Your task to perform on an android device: set an alarm Image 0: 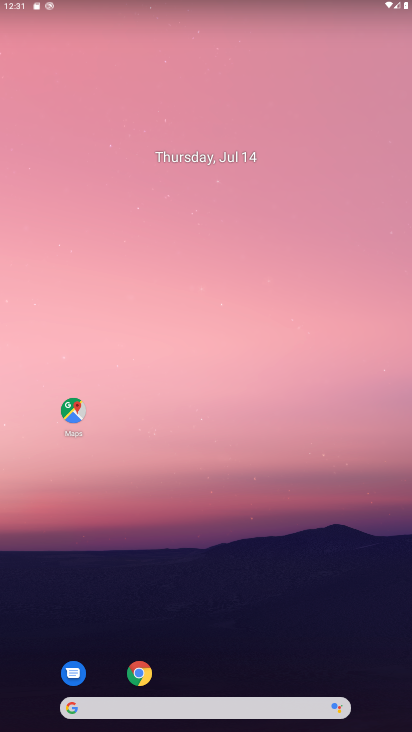
Step 0: drag from (305, 644) to (235, 52)
Your task to perform on an android device: set an alarm Image 1: 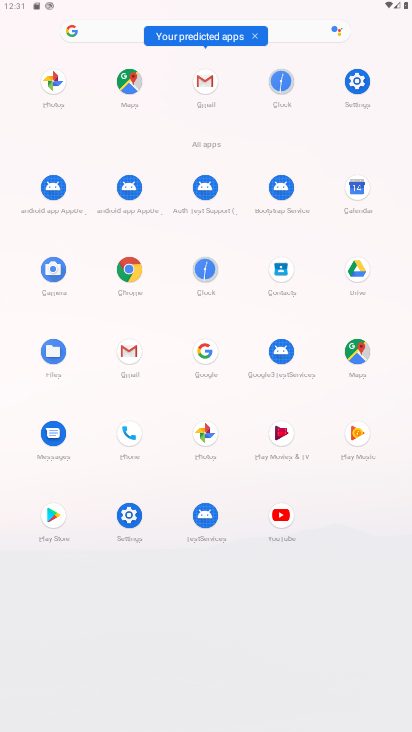
Step 1: click (287, 80)
Your task to perform on an android device: set an alarm Image 2: 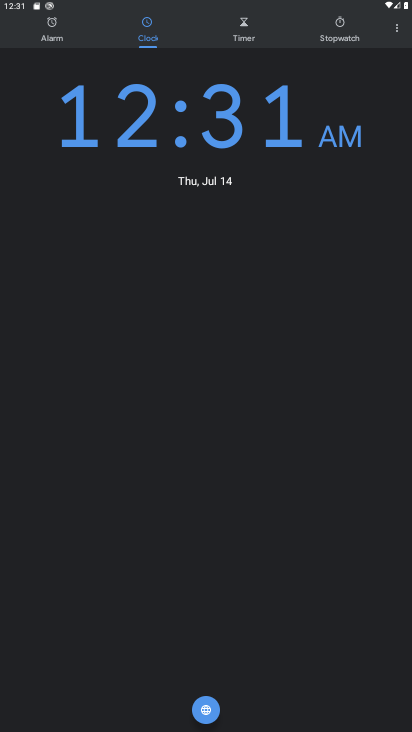
Step 2: click (56, 15)
Your task to perform on an android device: set an alarm Image 3: 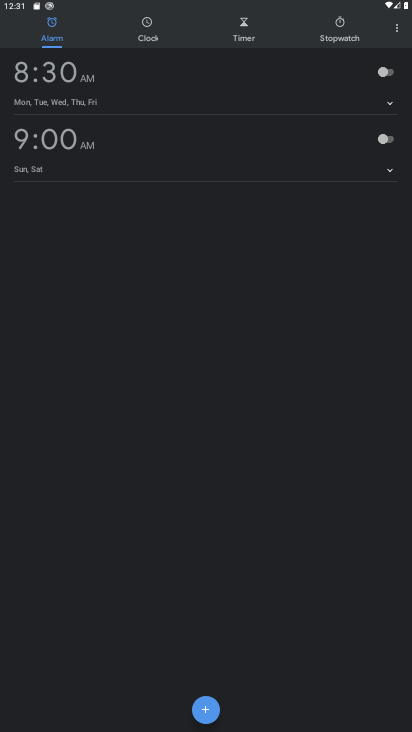
Step 3: click (386, 75)
Your task to perform on an android device: set an alarm Image 4: 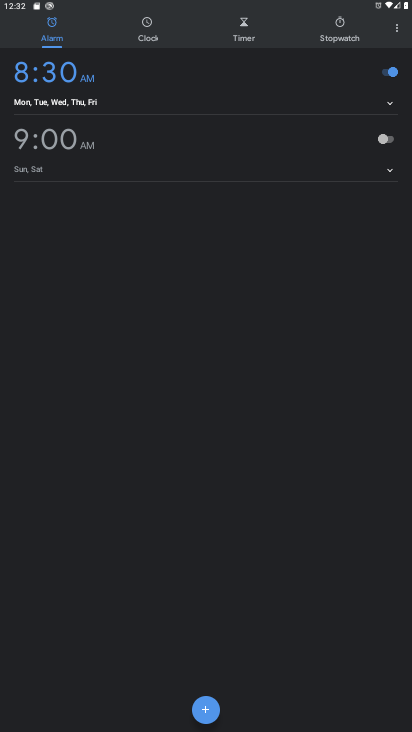
Step 4: task complete